Your task to perform on an android device: check storage Image 0: 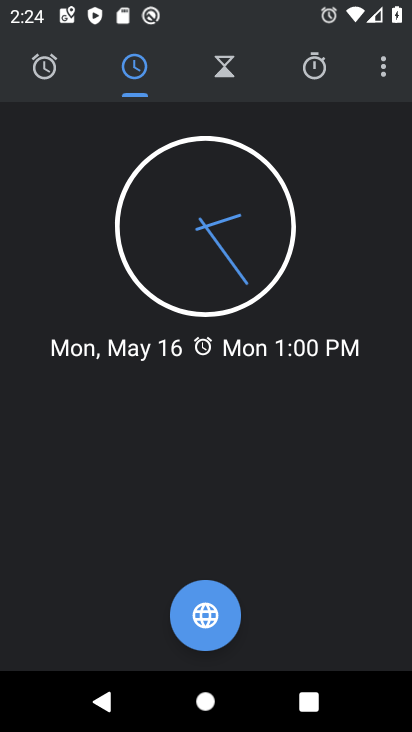
Step 0: press home button
Your task to perform on an android device: check storage Image 1: 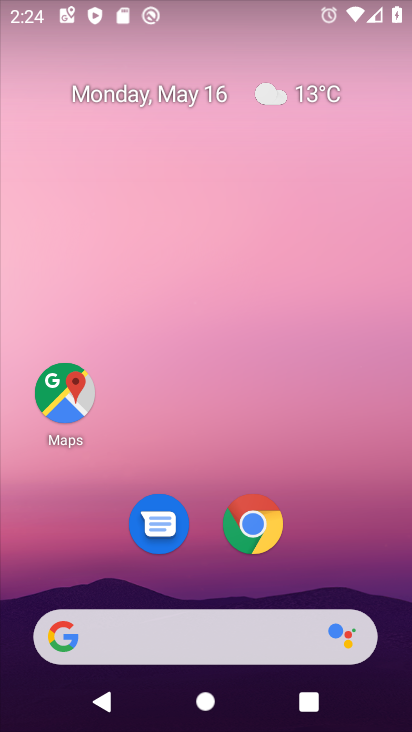
Step 1: drag from (197, 454) to (207, 37)
Your task to perform on an android device: check storage Image 2: 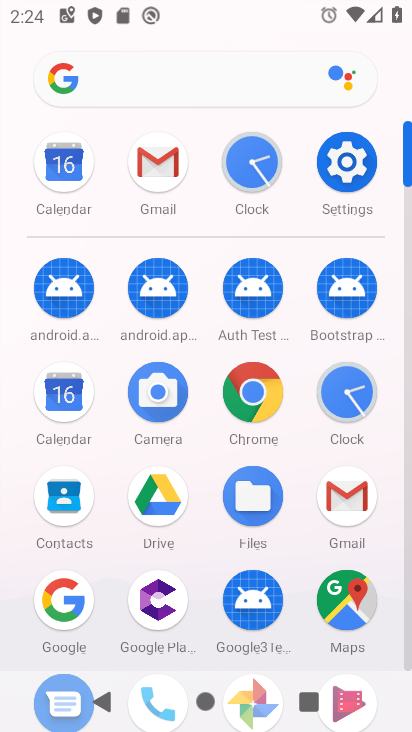
Step 2: click (342, 172)
Your task to perform on an android device: check storage Image 3: 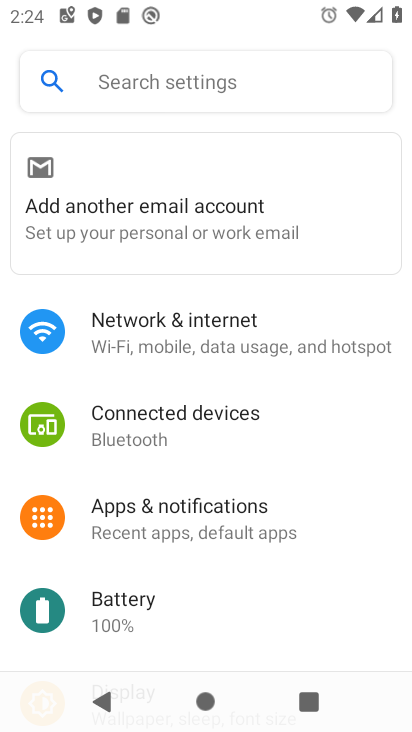
Step 3: drag from (243, 558) to (262, 149)
Your task to perform on an android device: check storage Image 4: 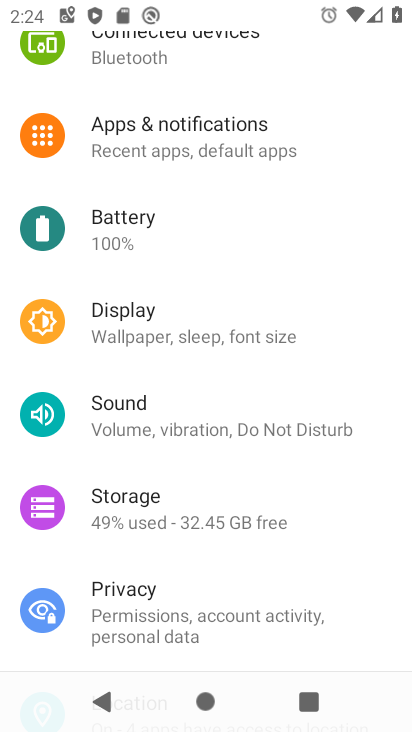
Step 4: click (205, 496)
Your task to perform on an android device: check storage Image 5: 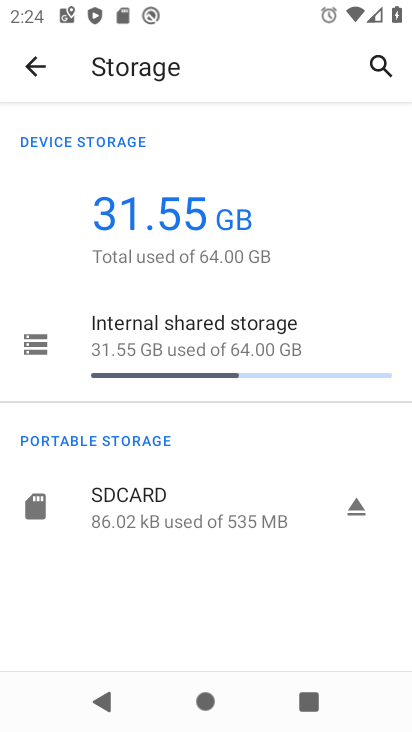
Step 5: task complete